Your task to perform on an android device: Clear all items from cart on target. Image 0: 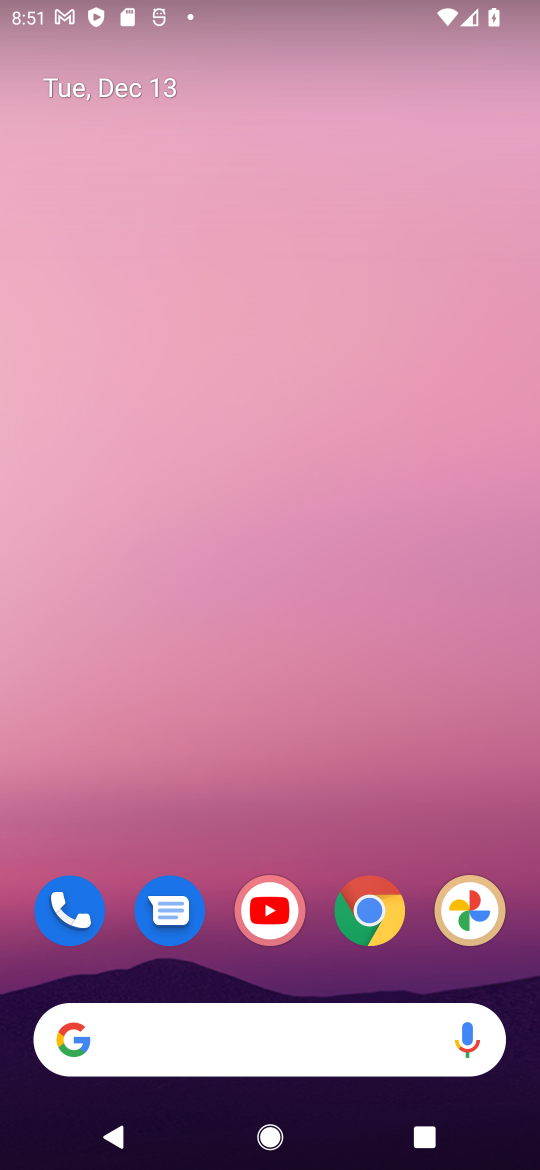
Step 0: drag from (322, 817) to (322, 203)
Your task to perform on an android device: Clear all items from cart on target. Image 1: 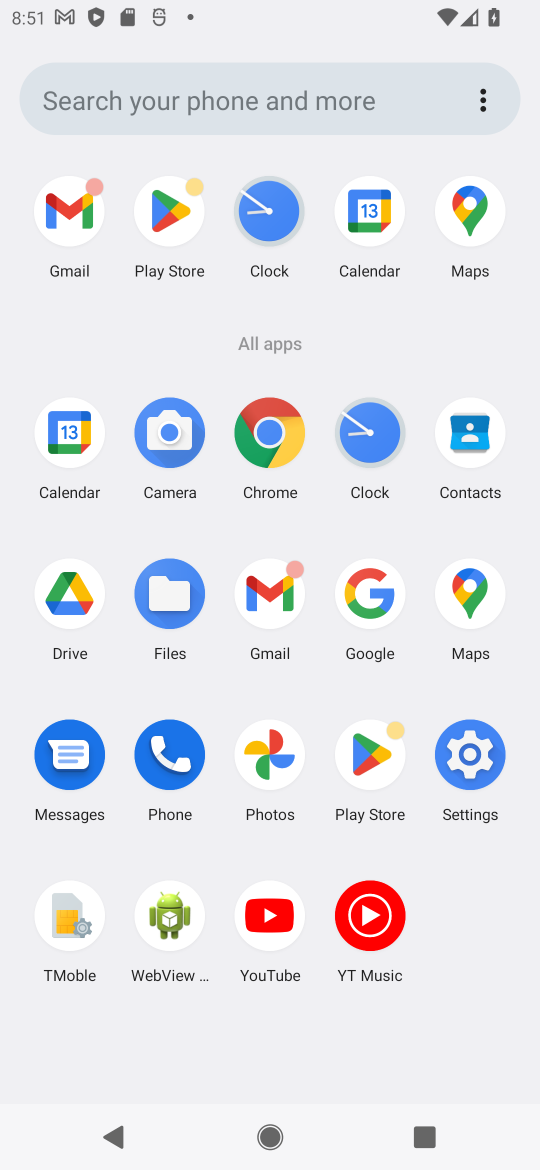
Step 1: click (358, 587)
Your task to perform on an android device: Clear all items from cart on target. Image 2: 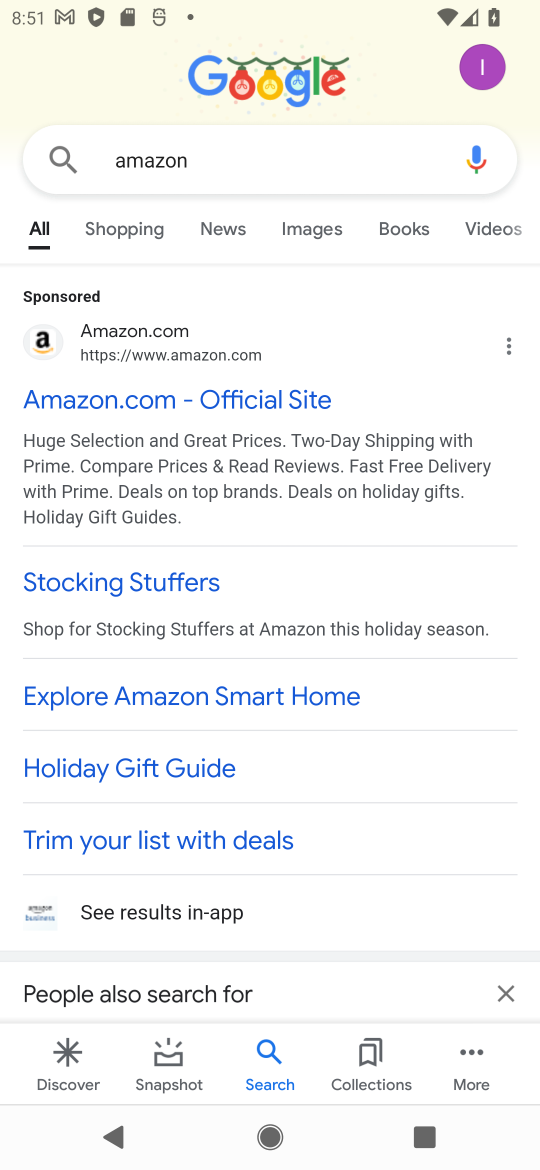
Step 2: click (155, 151)
Your task to perform on an android device: Clear all items from cart on target. Image 3: 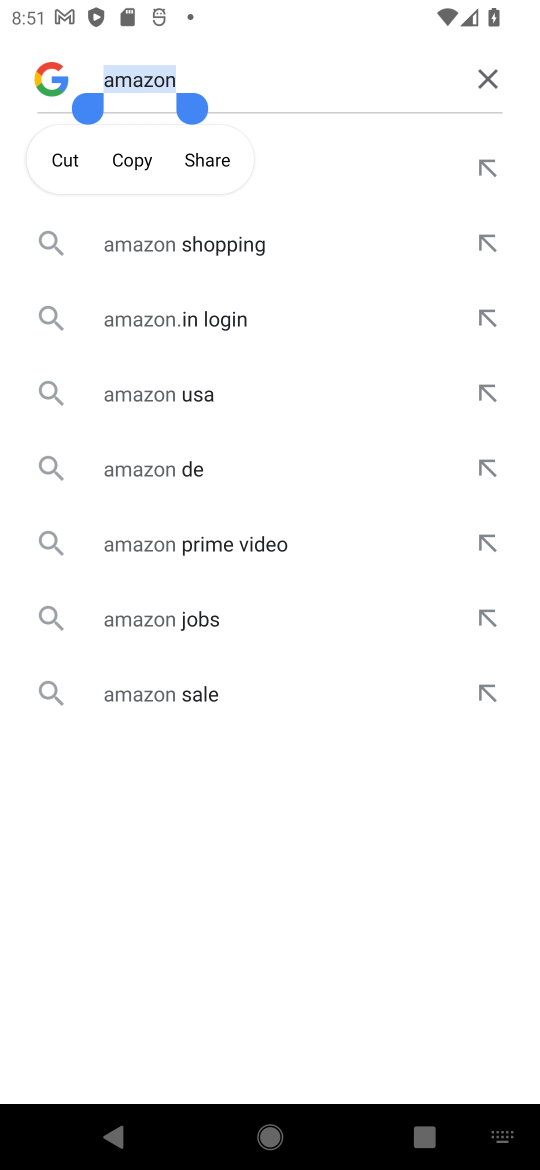
Step 3: click (477, 84)
Your task to perform on an android device: Clear all items from cart on target. Image 4: 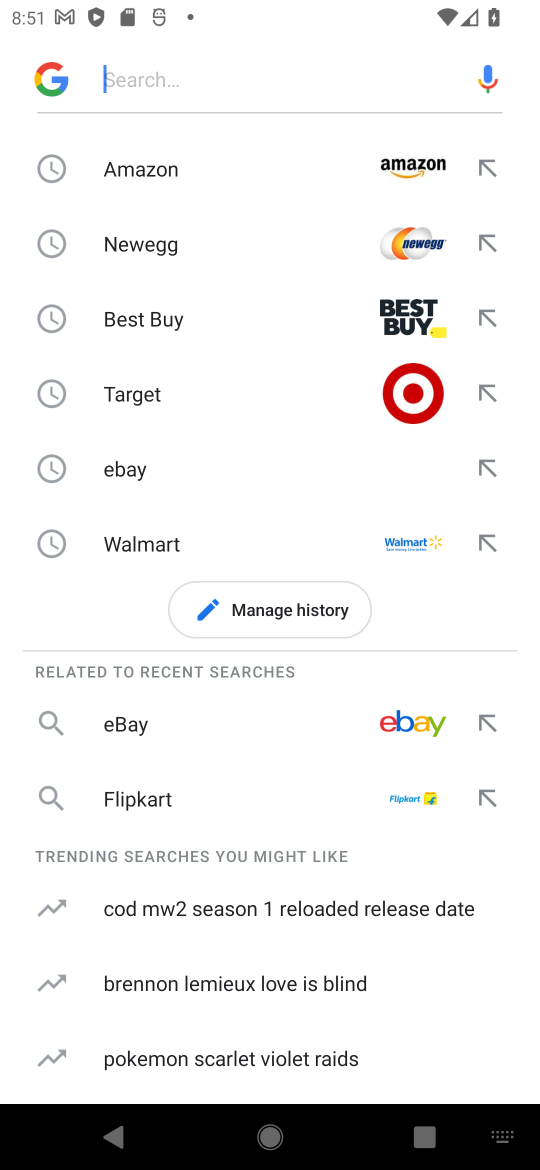
Step 4: click (405, 393)
Your task to perform on an android device: Clear all items from cart on target. Image 5: 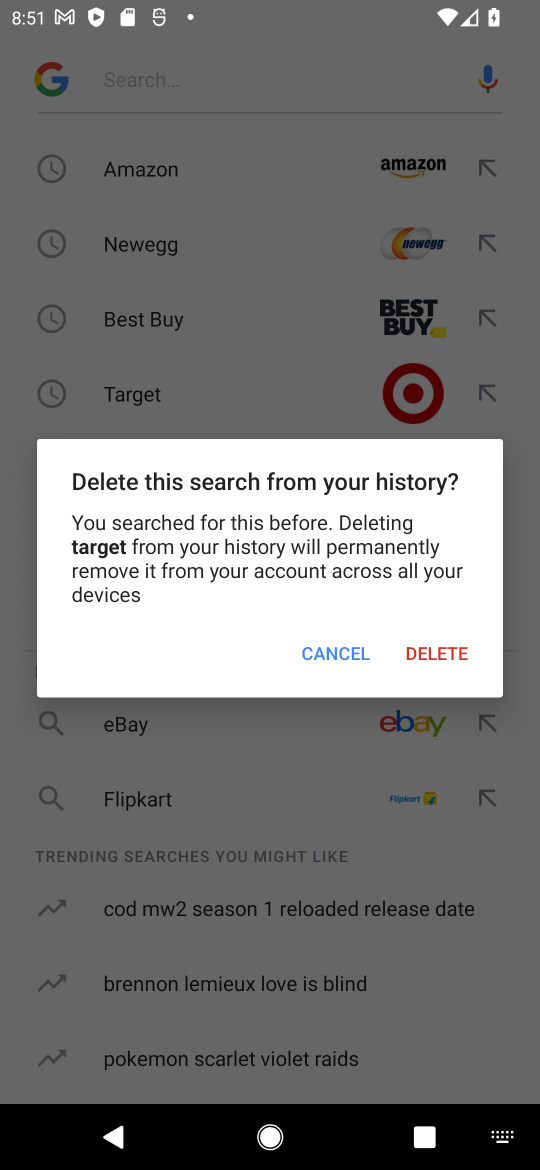
Step 5: click (317, 647)
Your task to perform on an android device: Clear all items from cart on target. Image 6: 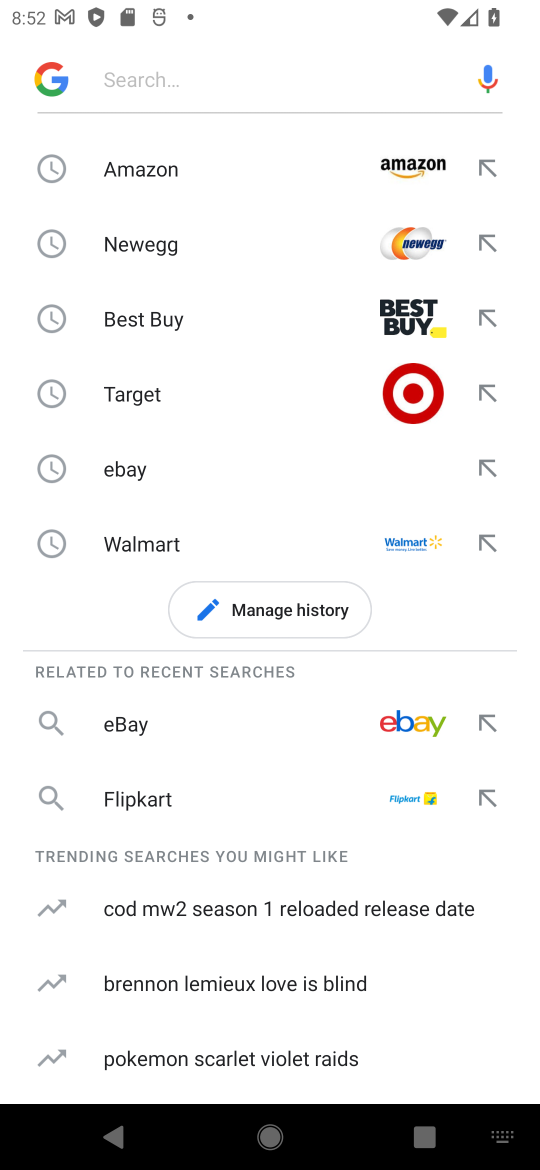
Step 6: click (134, 394)
Your task to perform on an android device: Clear all items from cart on target. Image 7: 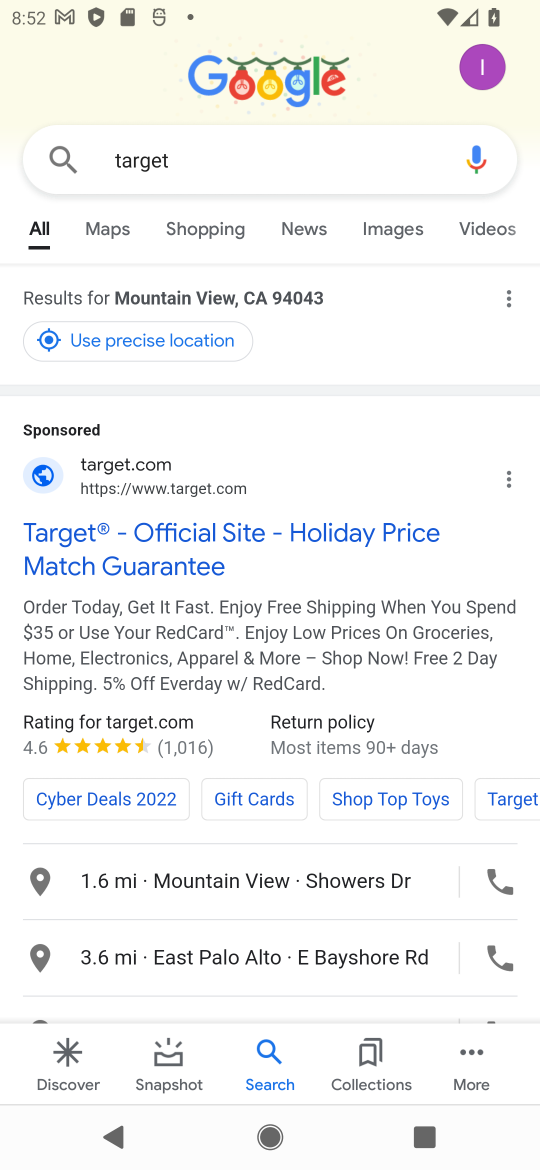
Step 7: click (180, 546)
Your task to perform on an android device: Clear all items from cart on target. Image 8: 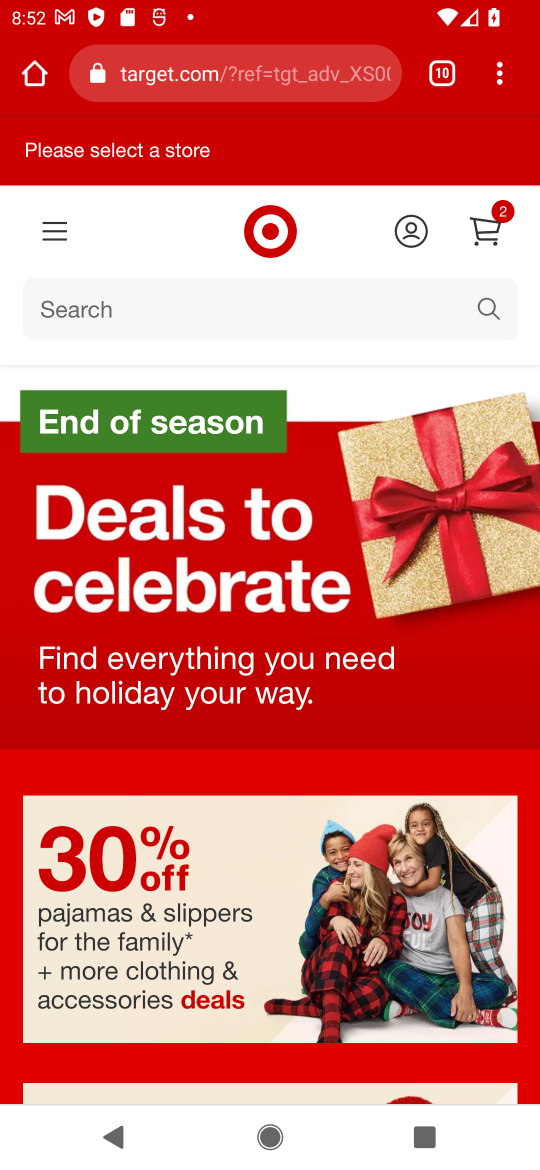
Step 8: click (487, 220)
Your task to perform on an android device: Clear all items from cart on target. Image 9: 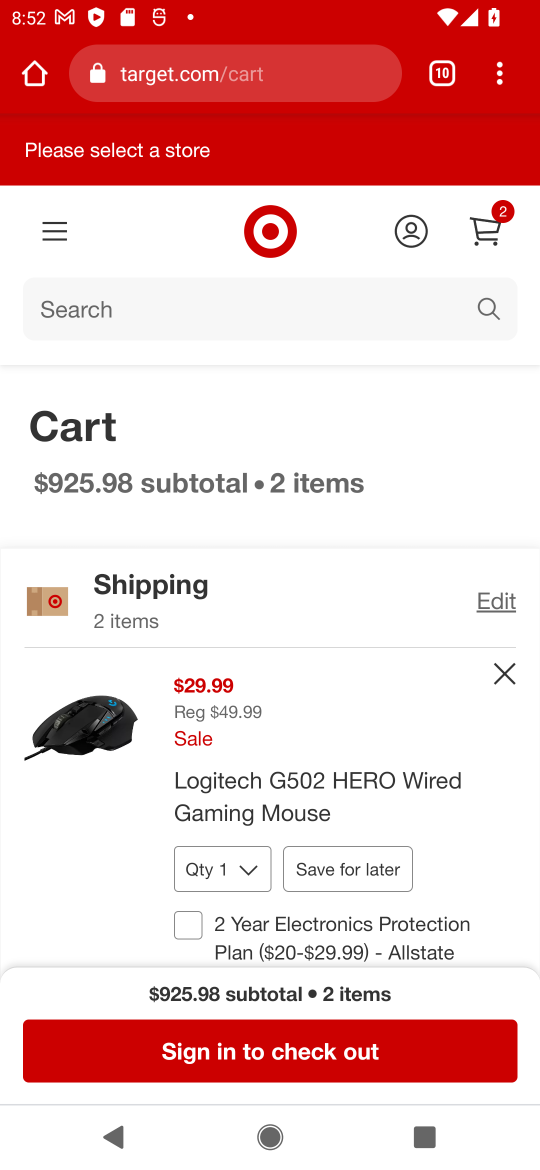
Step 9: click (508, 669)
Your task to perform on an android device: Clear all items from cart on target. Image 10: 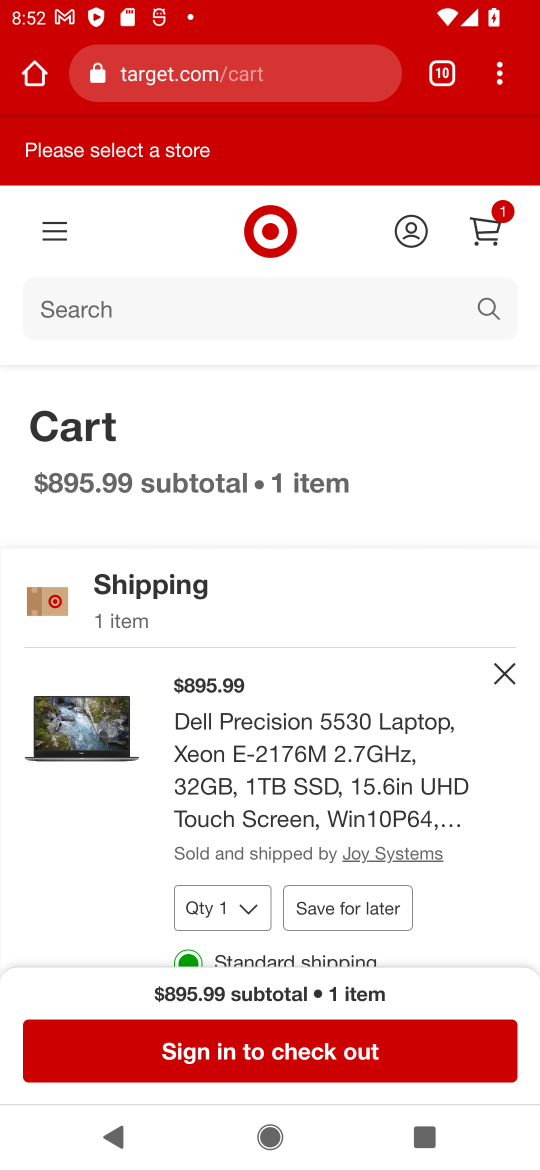
Step 10: task complete